Your task to perform on an android device: toggle priority inbox in the gmail app Image 0: 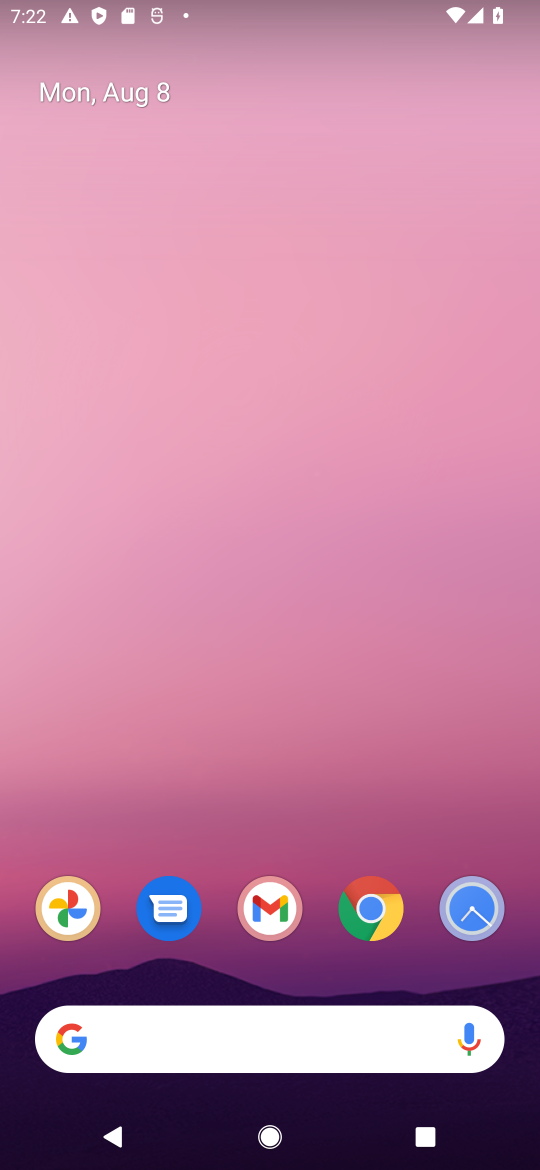
Step 0: click (279, 904)
Your task to perform on an android device: toggle priority inbox in the gmail app Image 1: 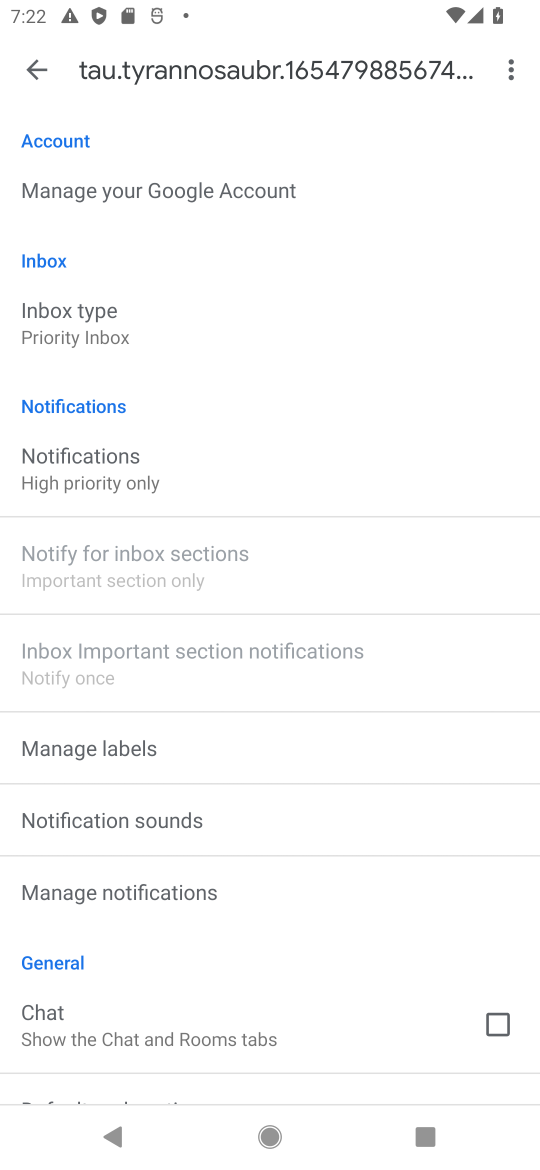
Step 1: click (136, 349)
Your task to perform on an android device: toggle priority inbox in the gmail app Image 2: 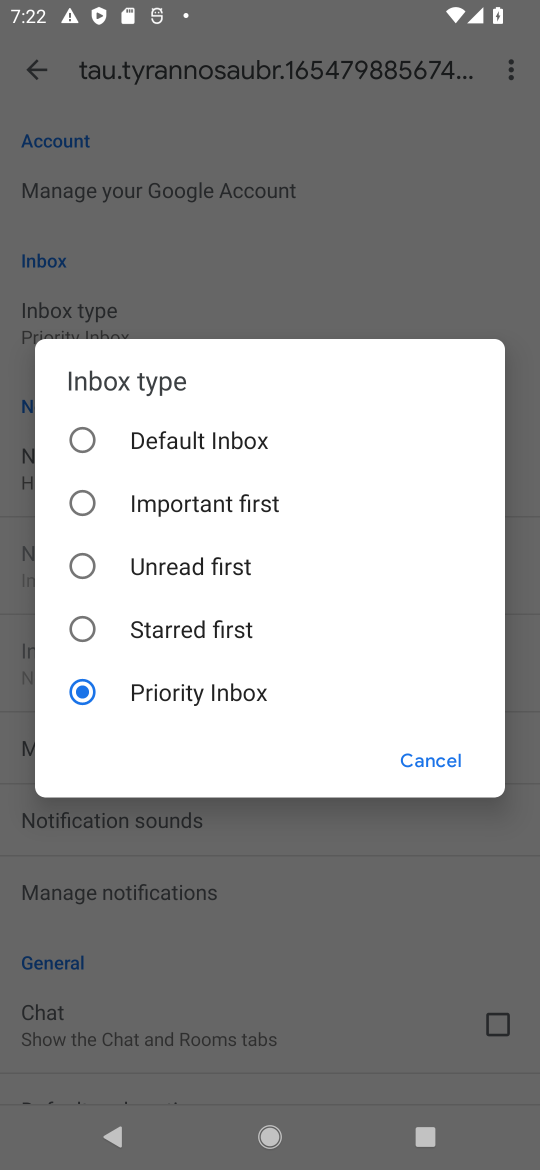
Step 2: click (190, 522)
Your task to perform on an android device: toggle priority inbox in the gmail app Image 3: 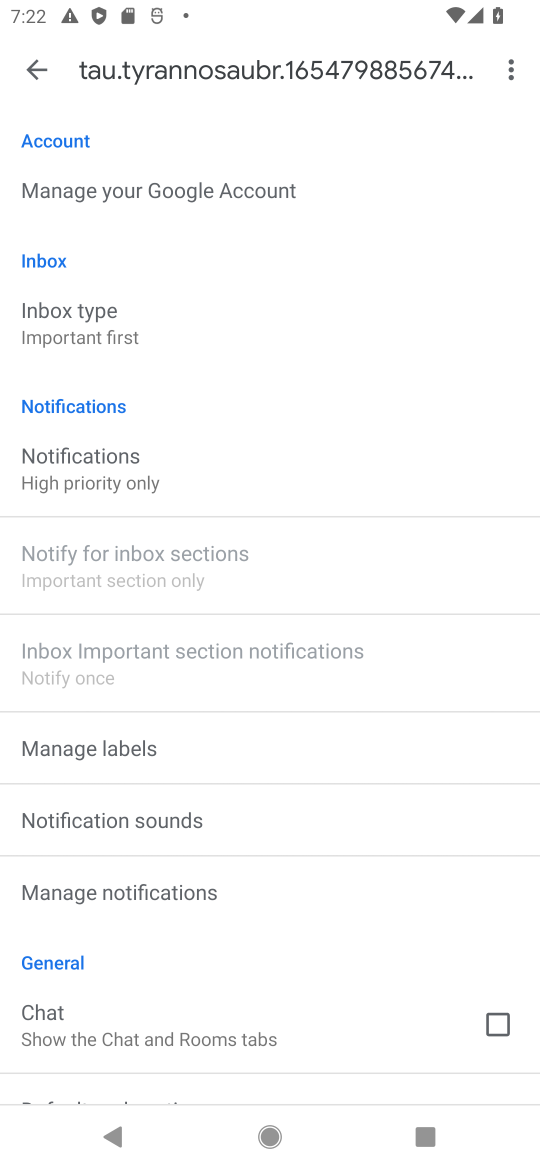
Step 3: task complete